Your task to perform on an android device: turn off data saver in the chrome app Image 0: 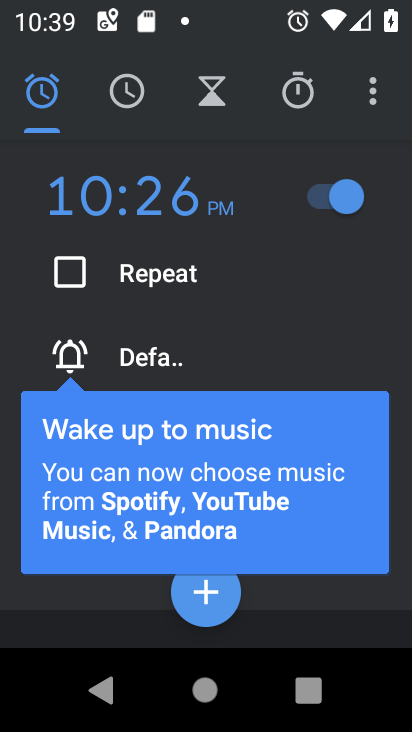
Step 0: press home button
Your task to perform on an android device: turn off data saver in the chrome app Image 1: 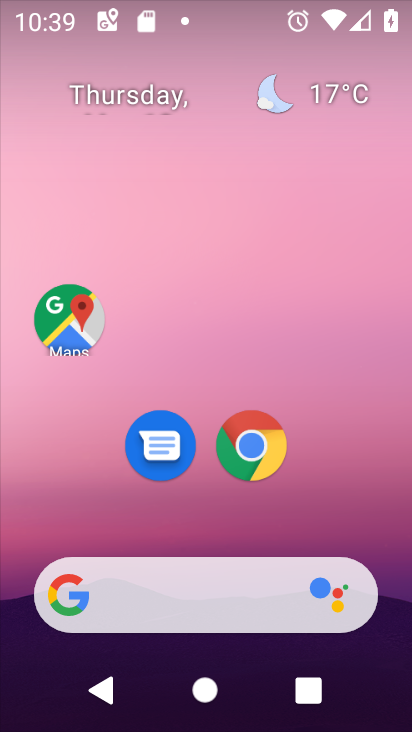
Step 1: drag from (292, 519) to (349, 217)
Your task to perform on an android device: turn off data saver in the chrome app Image 2: 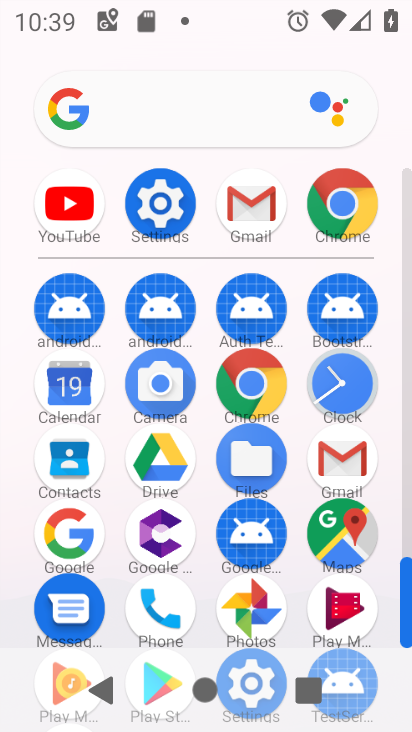
Step 2: click (258, 394)
Your task to perform on an android device: turn off data saver in the chrome app Image 3: 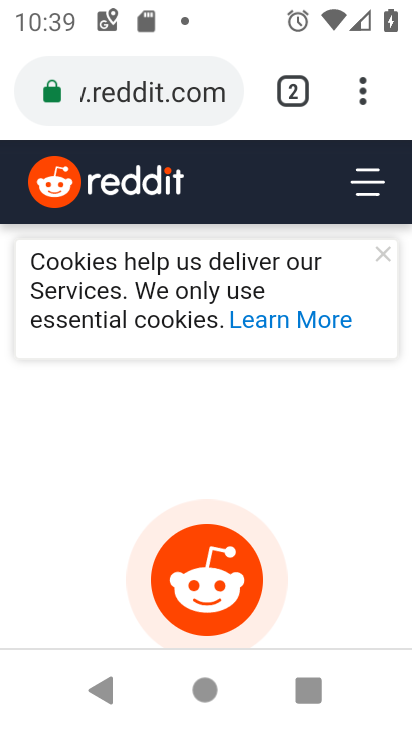
Step 3: click (367, 106)
Your task to perform on an android device: turn off data saver in the chrome app Image 4: 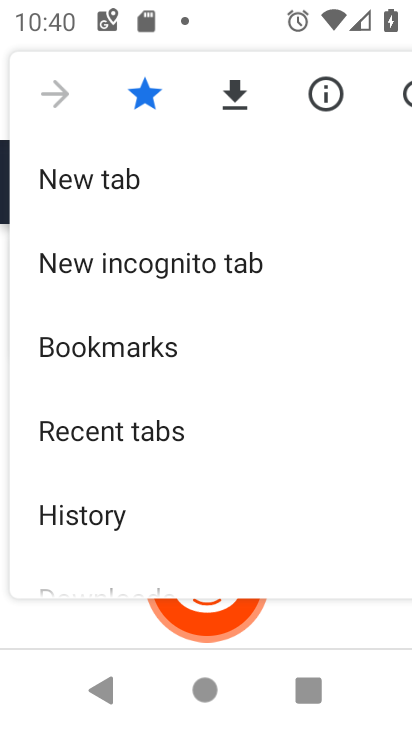
Step 4: drag from (223, 460) to (212, 122)
Your task to perform on an android device: turn off data saver in the chrome app Image 5: 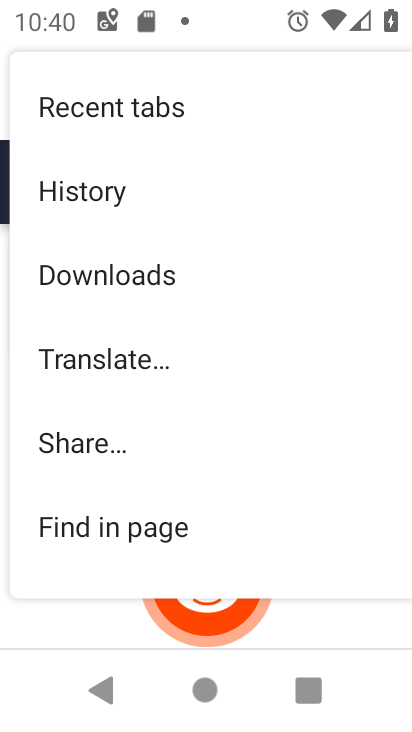
Step 5: drag from (207, 471) to (215, 201)
Your task to perform on an android device: turn off data saver in the chrome app Image 6: 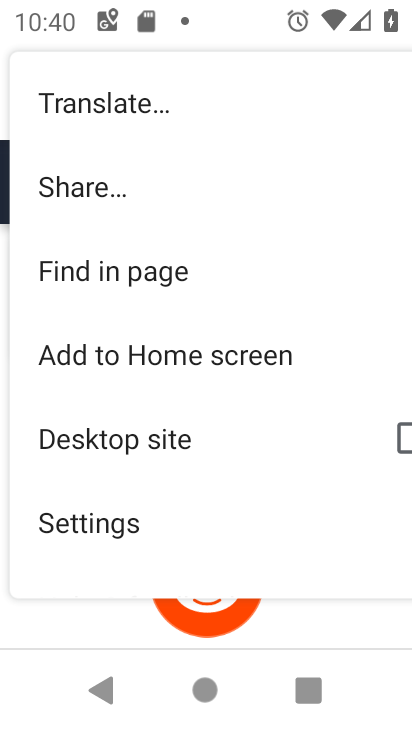
Step 6: click (120, 527)
Your task to perform on an android device: turn off data saver in the chrome app Image 7: 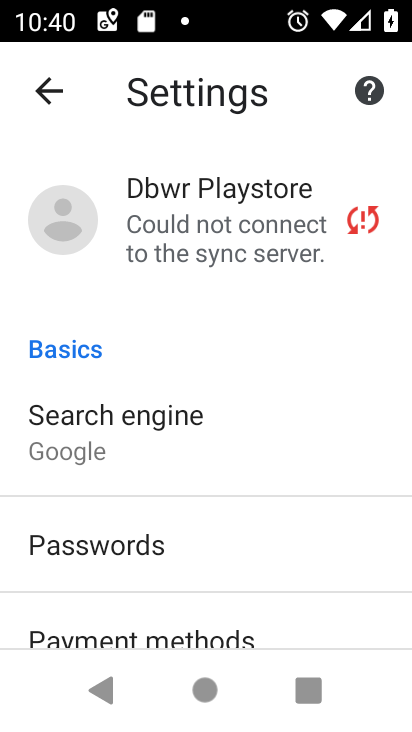
Step 7: drag from (96, 587) to (221, 211)
Your task to perform on an android device: turn off data saver in the chrome app Image 8: 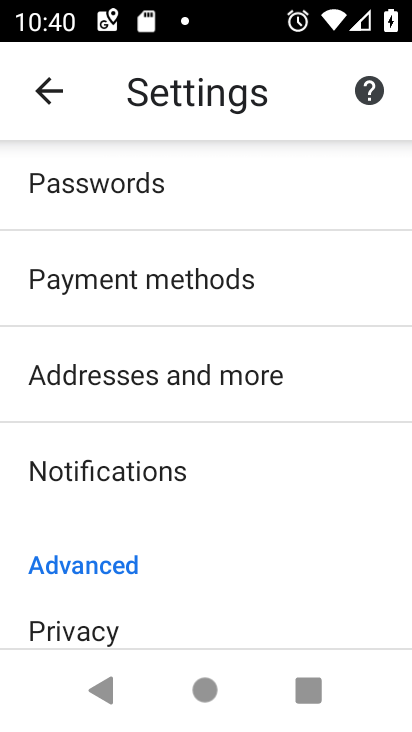
Step 8: drag from (250, 564) to (233, 207)
Your task to perform on an android device: turn off data saver in the chrome app Image 9: 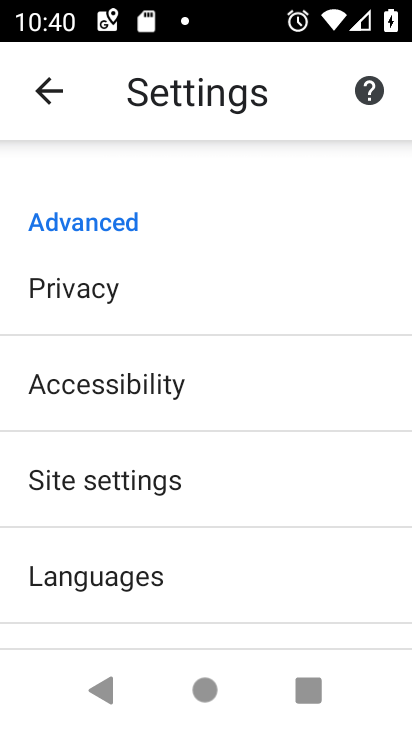
Step 9: drag from (179, 469) to (193, 242)
Your task to perform on an android device: turn off data saver in the chrome app Image 10: 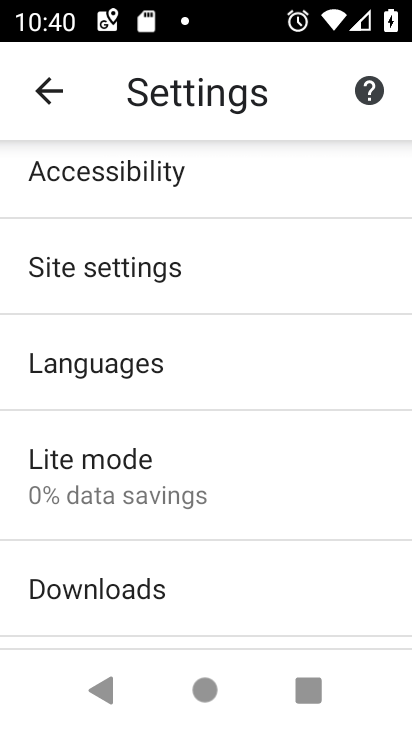
Step 10: click (169, 476)
Your task to perform on an android device: turn off data saver in the chrome app Image 11: 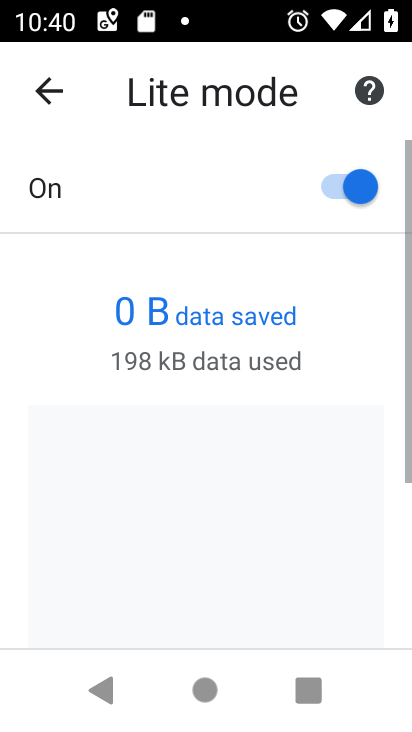
Step 11: click (358, 194)
Your task to perform on an android device: turn off data saver in the chrome app Image 12: 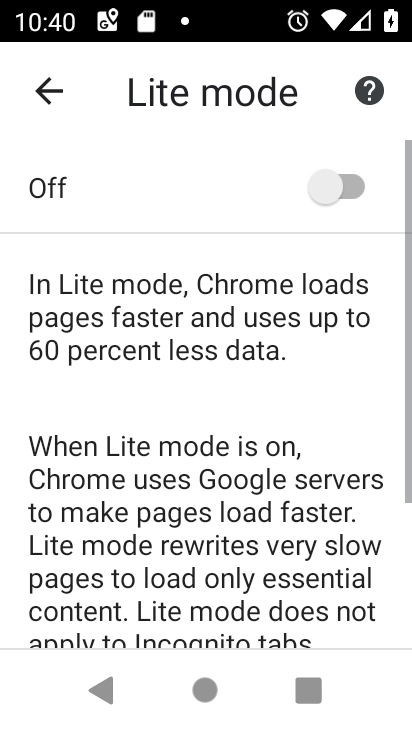
Step 12: task complete